Your task to perform on an android device: turn pop-ups off in chrome Image 0: 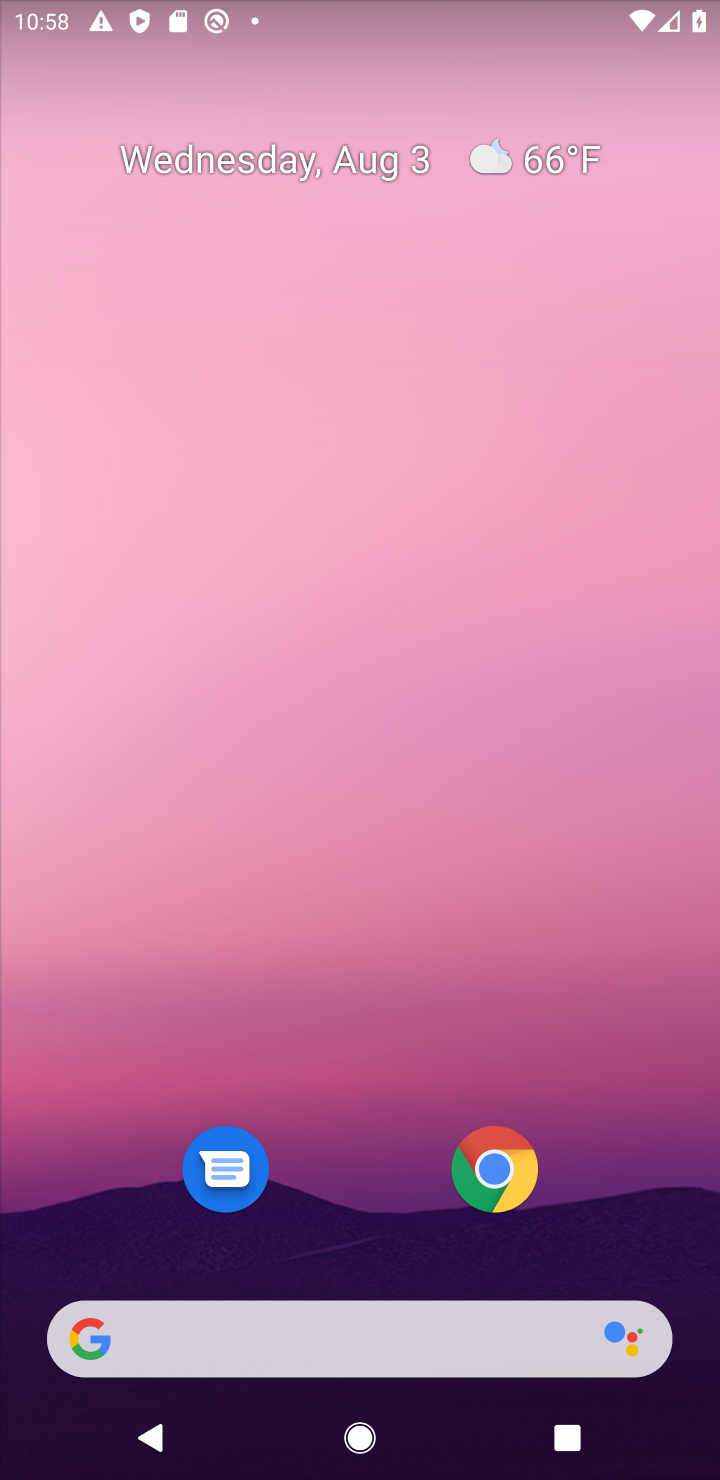
Step 0: click (512, 1177)
Your task to perform on an android device: turn pop-ups off in chrome Image 1: 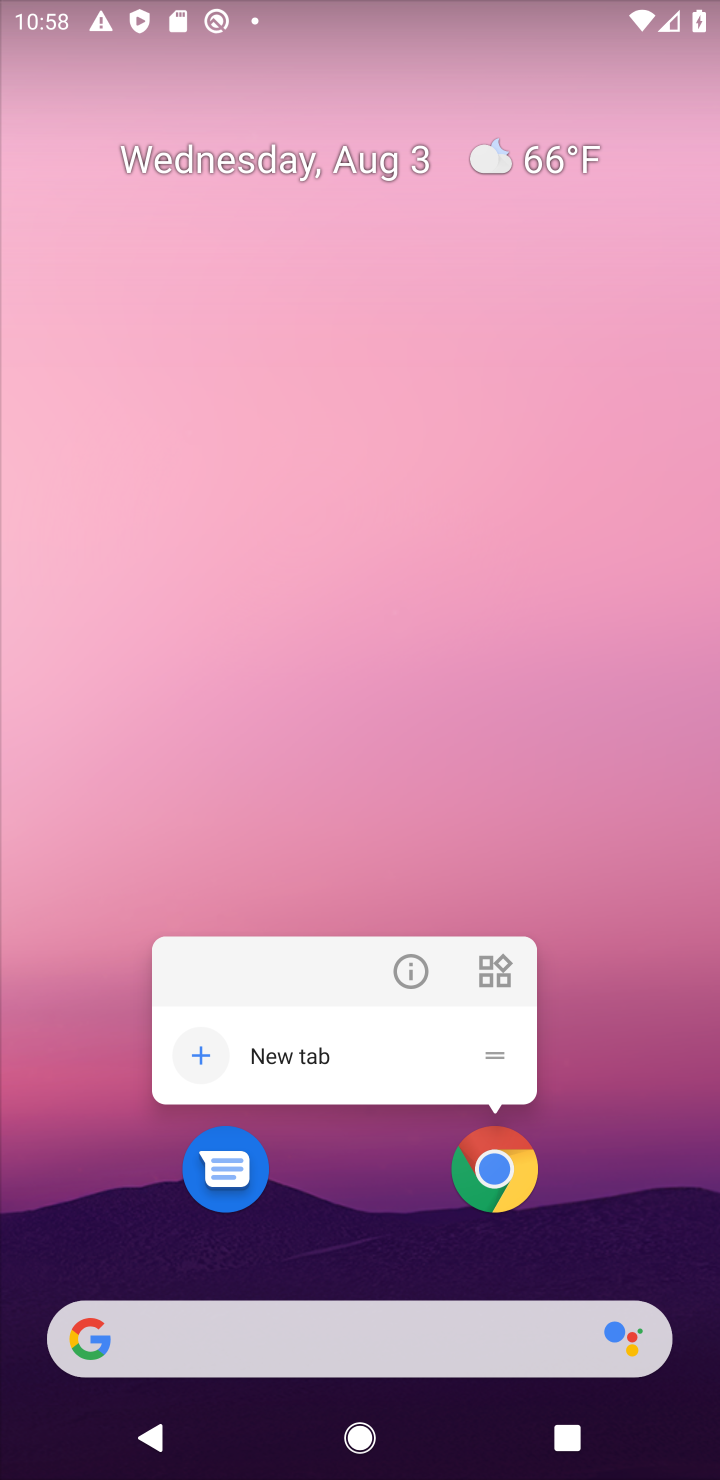
Step 1: click (491, 1164)
Your task to perform on an android device: turn pop-ups off in chrome Image 2: 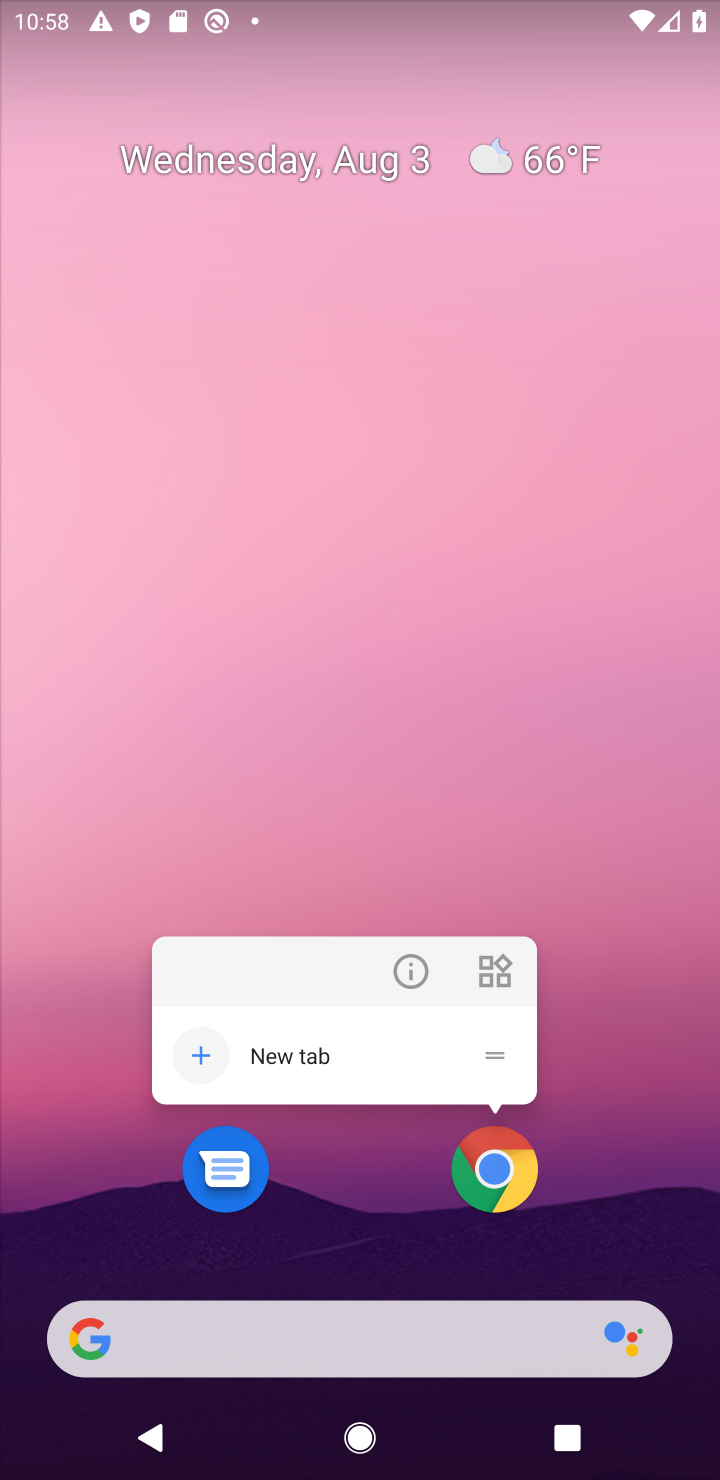
Step 2: click (497, 1184)
Your task to perform on an android device: turn pop-ups off in chrome Image 3: 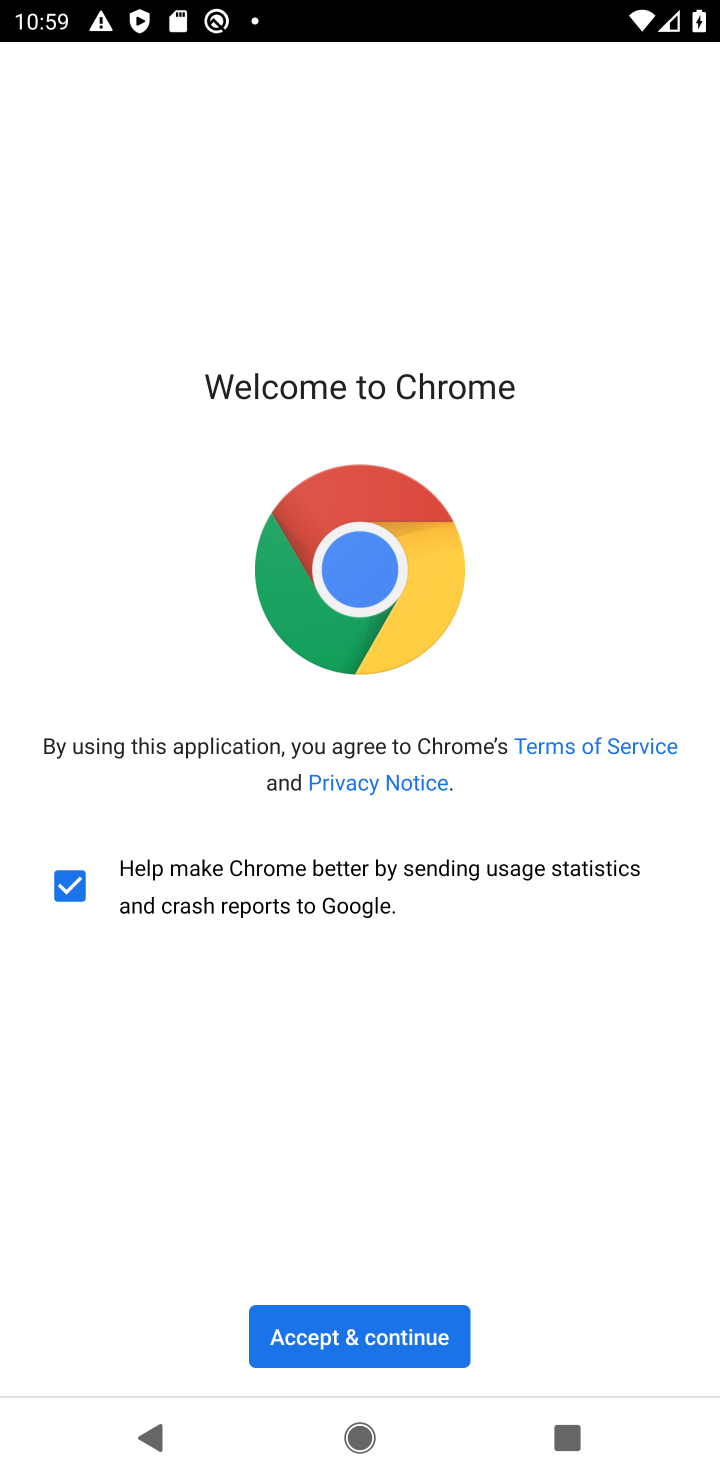
Step 3: click (384, 1331)
Your task to perform on an android device: turn pop-ups off in chrome Image 4: 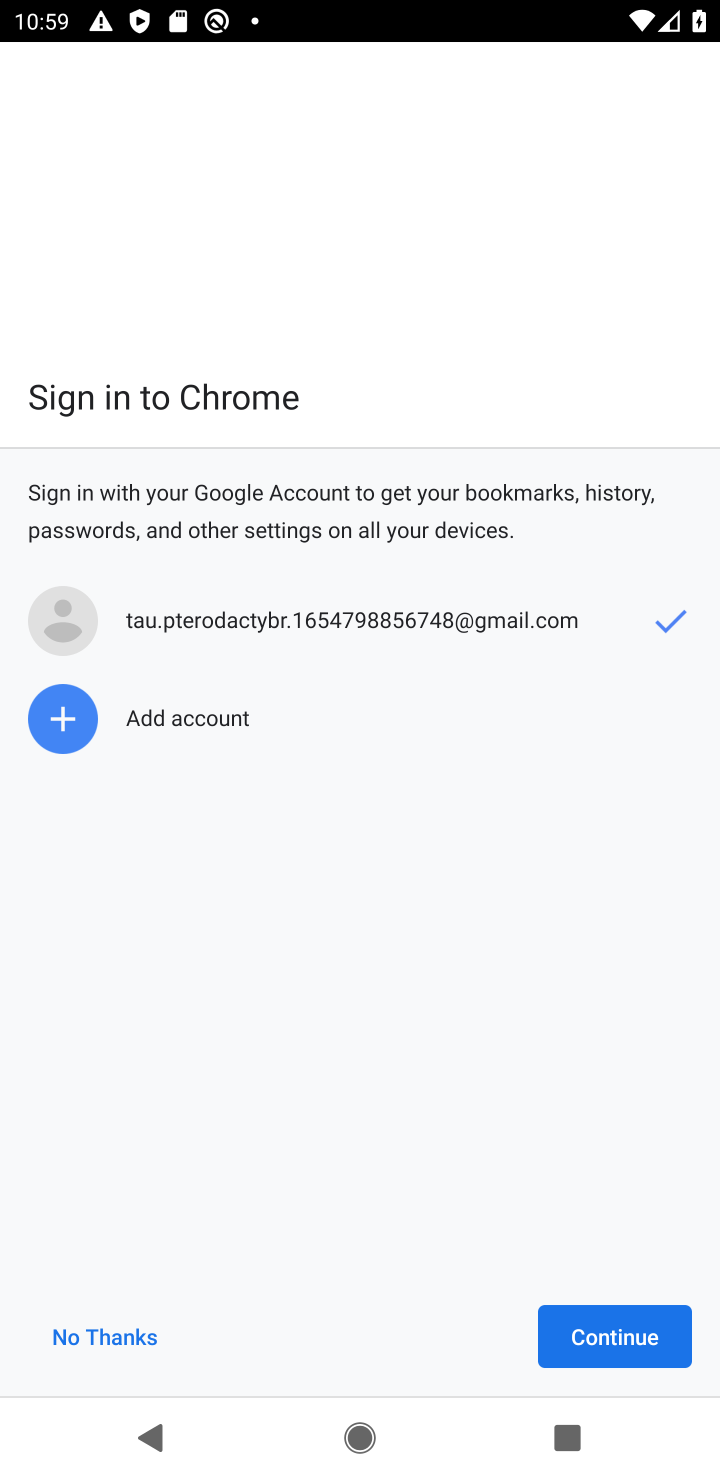
Step 4: click (70, 1340)
Your task to perform on an android device: turn pop-ups off in chrome Image 5: 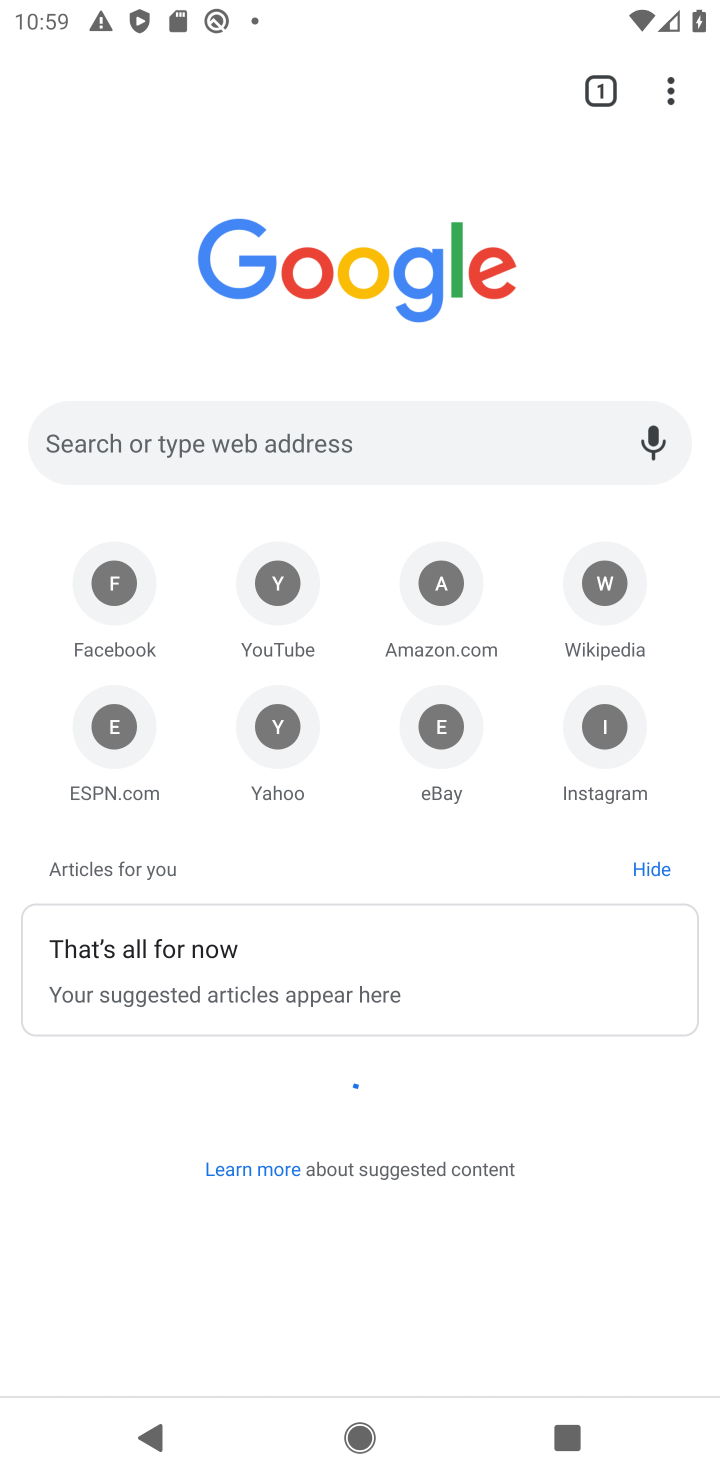
Step 5: drag from (672, 90) to (333, 777)
Your task to perform on an android device: turn pop-ups off in chrome Image 6: 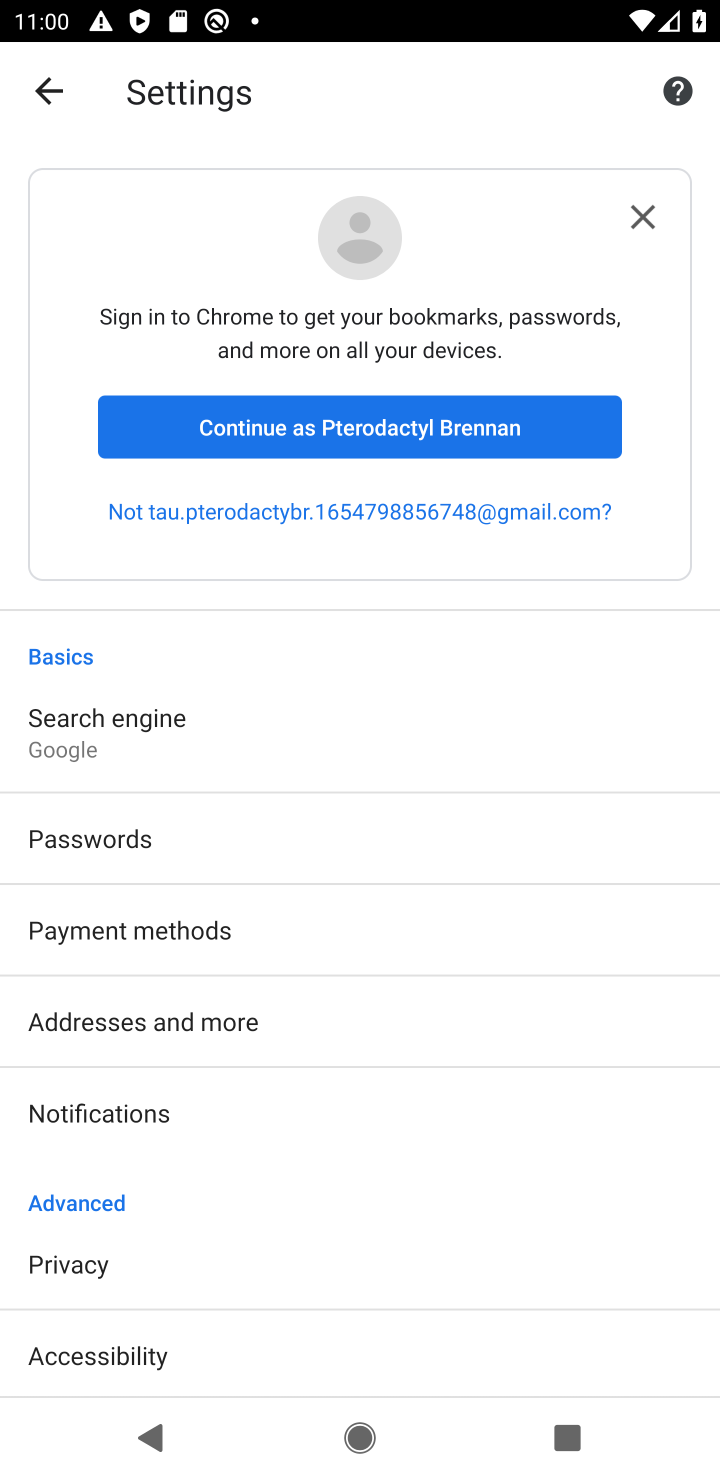
Step 6: drag from (248, 1244) to (296, 259)
Your task to perform on an android device: turn pop-ups off in chrome Image 7: 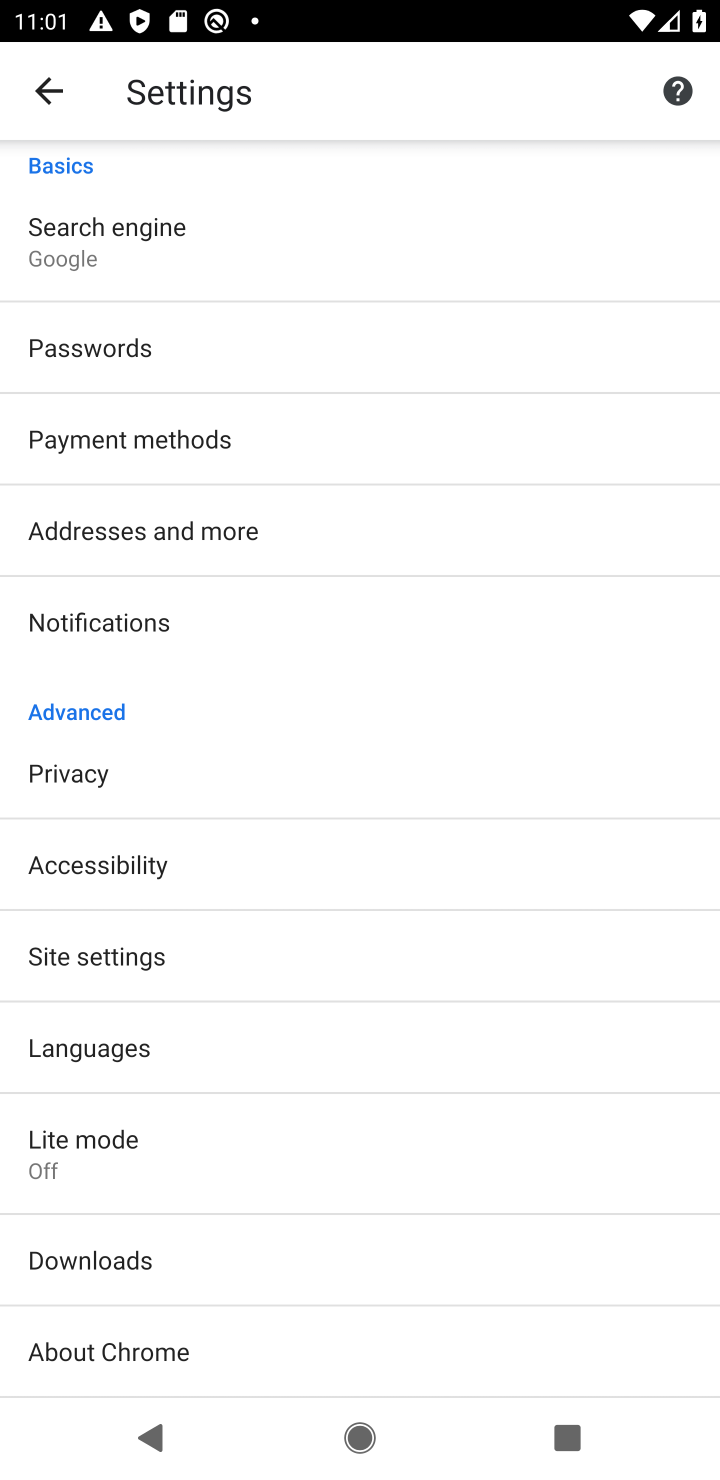
Step 7: click (138, 956)
Your task to perform on an android device: turn pop-ups off in chrome Image 8: 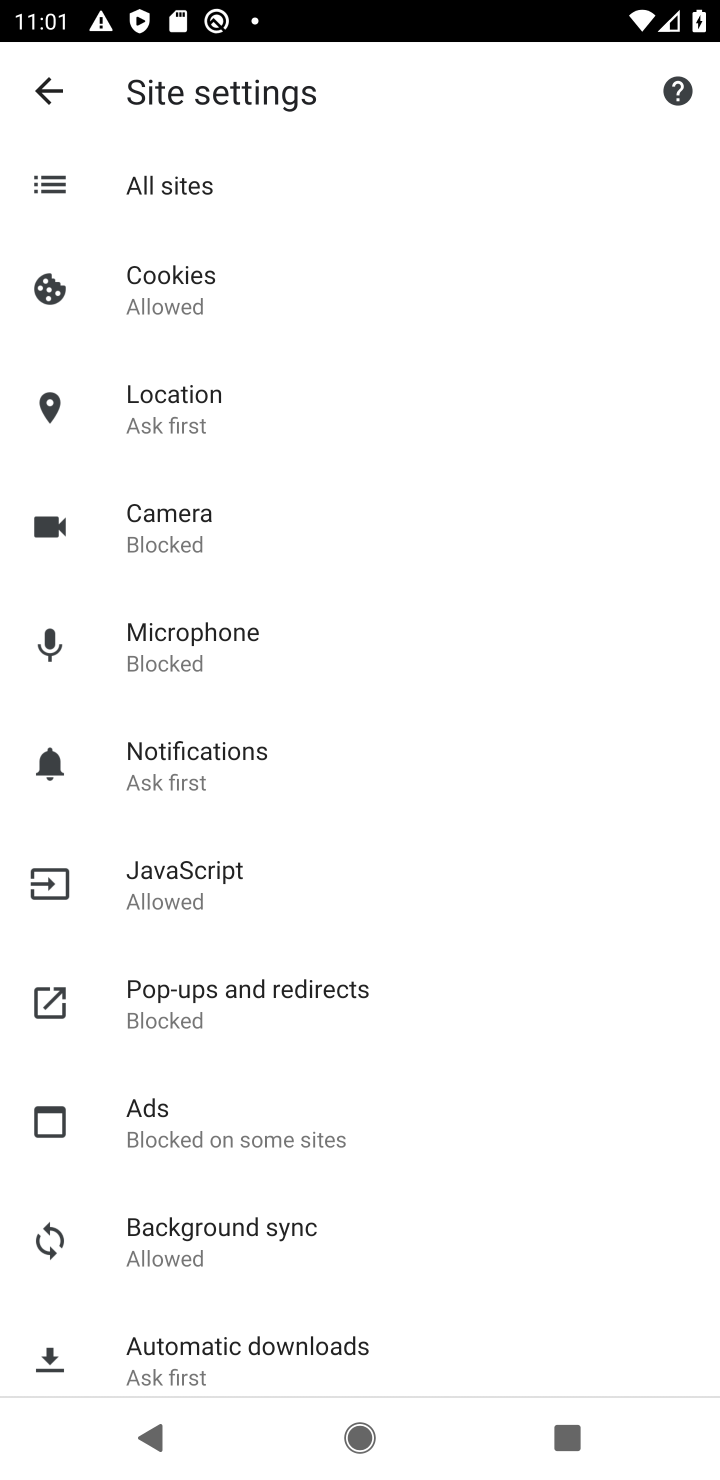
Step 8: click (177, 1031)
Your task to perform on an android device: turn pop-ups off in chrome Image 9: 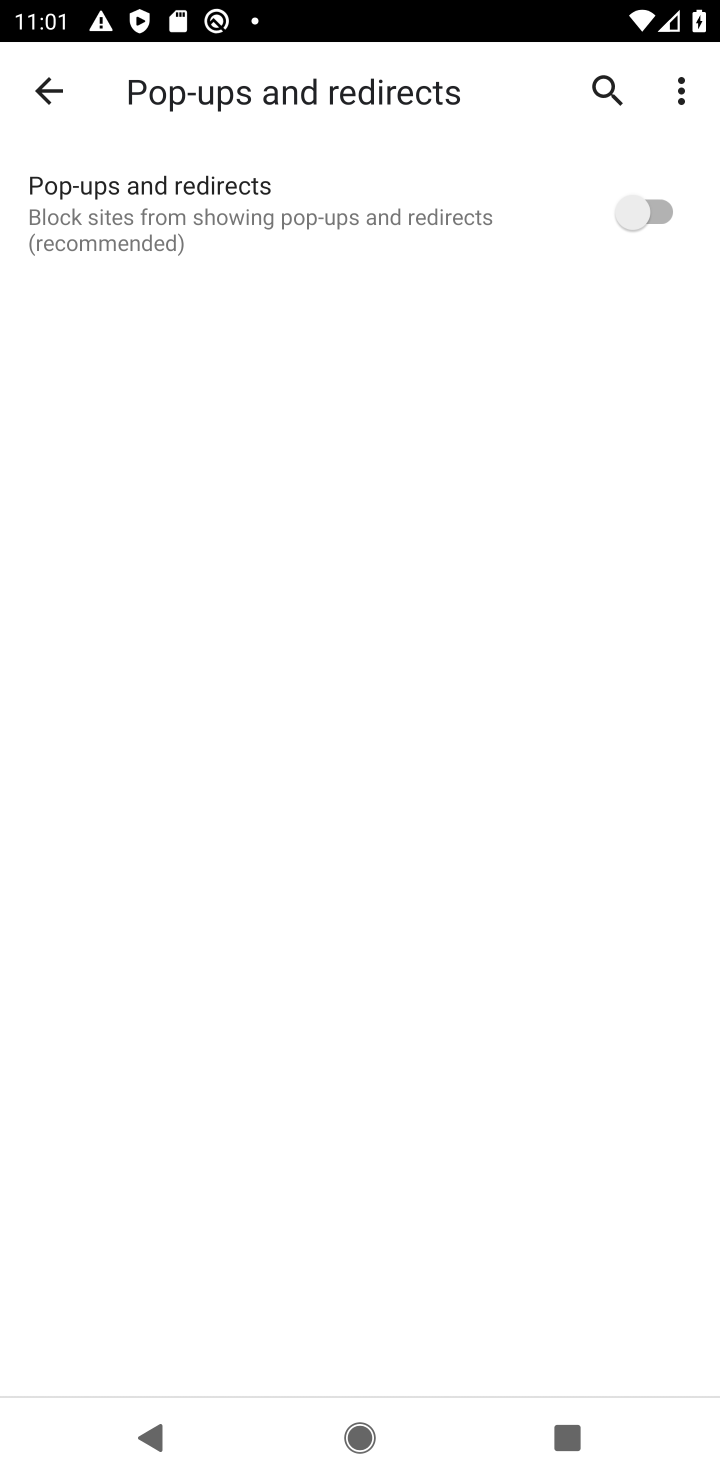
Step 9: task complete